Your task to perform on an android device: turn off location history Image 0: 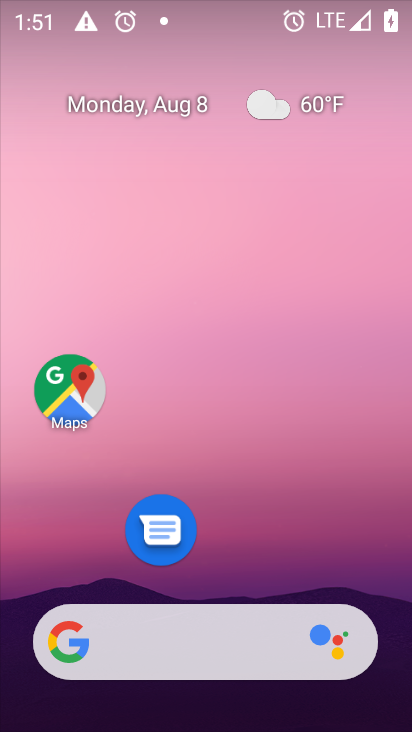
Step 0: drag from (236, 551) to (236, 85)
Your task to perform on an android device: turn off location history Image 1: 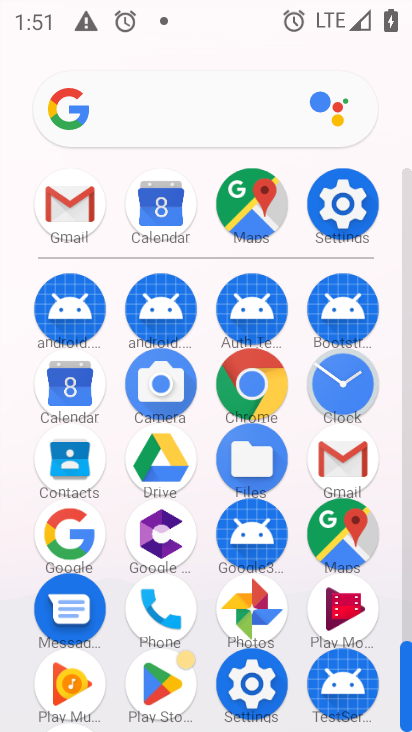
Step 1: click (343, 207)
Your task to perform on an android device: turn off location history Image 2: 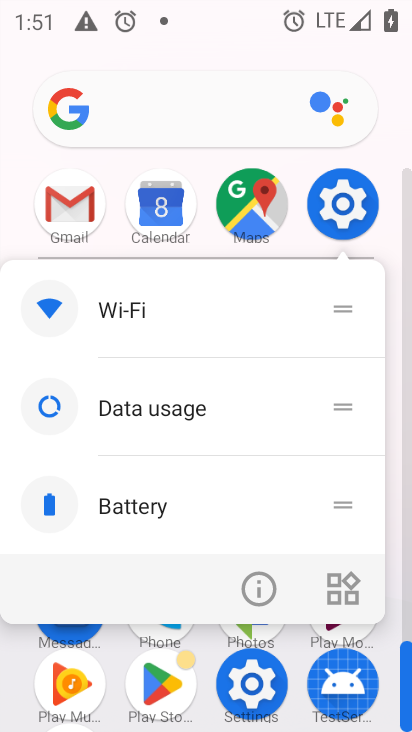
Step 2: click (342, 206)
Your task to perform on an android device: turn off location history Image 3: 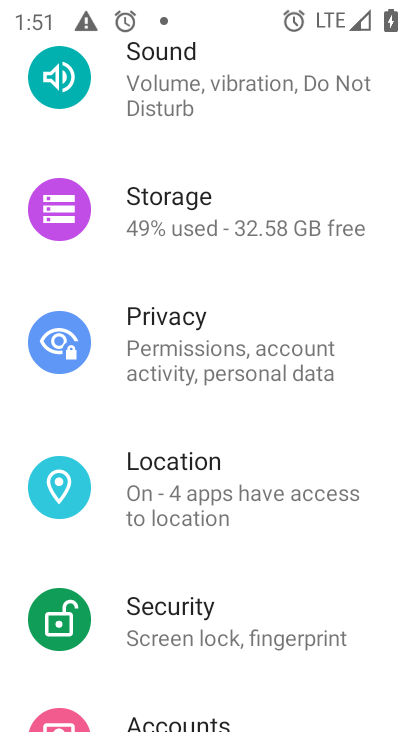
Step 3: click (194, 471)
Your task to perform on an android device: turn off location history Image 4: 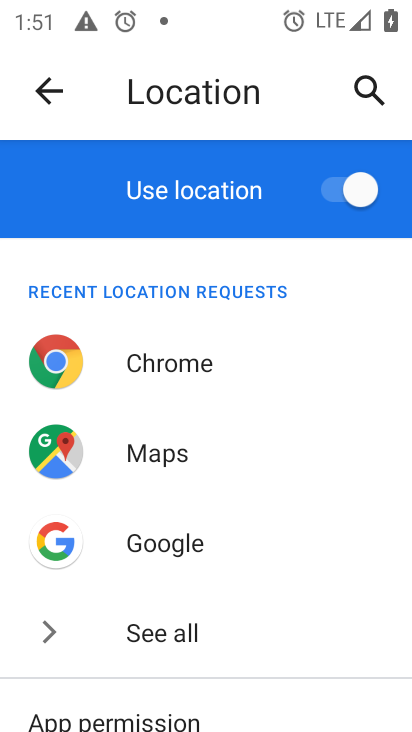
Step 4: drag from (164, 517) to (164, 359)
Your task to perform on an android device: turn off location history Image 5: 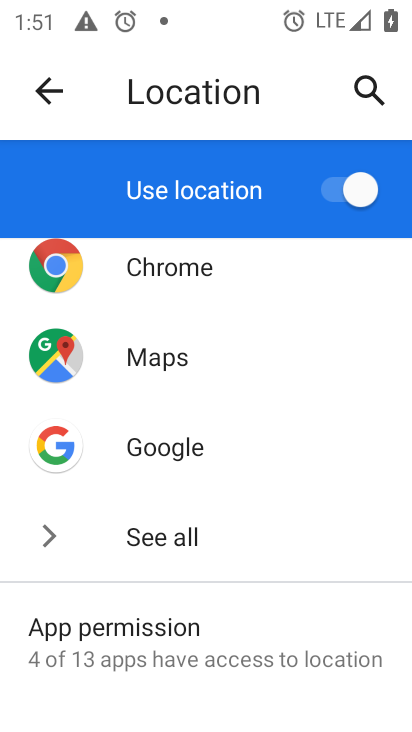
Step 5: drag from (253, 625) to (236, 327)
Your task to perform on an android device: turn off location history Image 6: 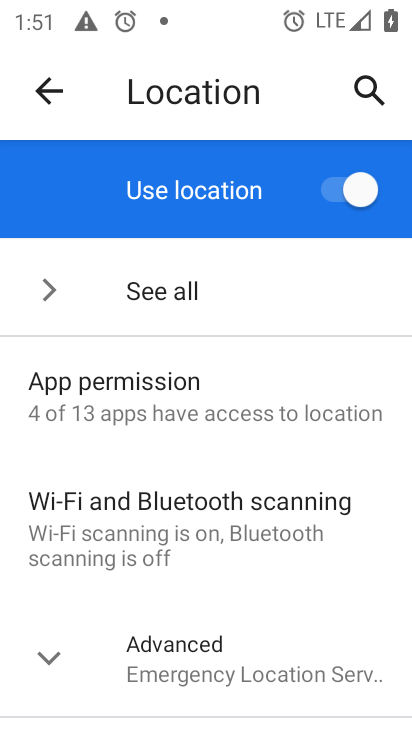
Step 6: click (228, 673)
Your task to perform on an android device: turn off location history Image 7: 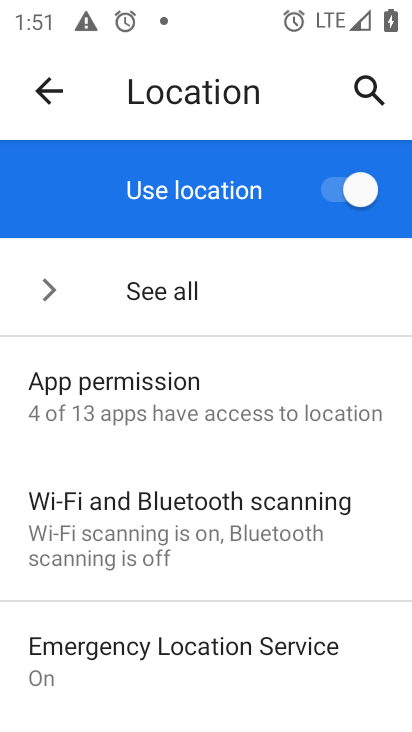
Step 7: drag from (222, 669) to (219, 400)
Your task to perform on an android device: turn off location history Image 8: 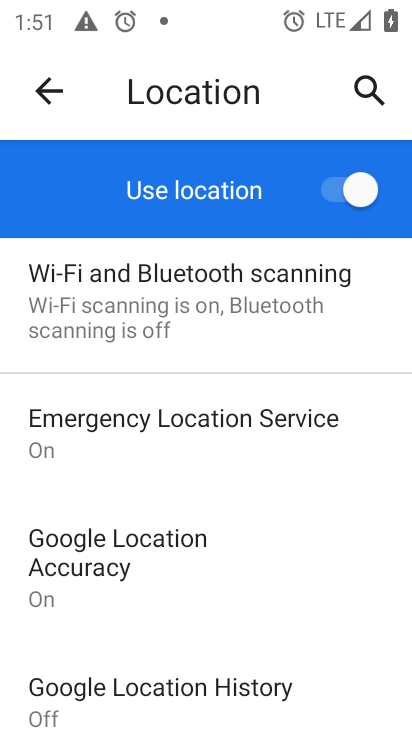
Step 8: click (207, 690)
Your task to perform on an android device: turn off location history Image 9: 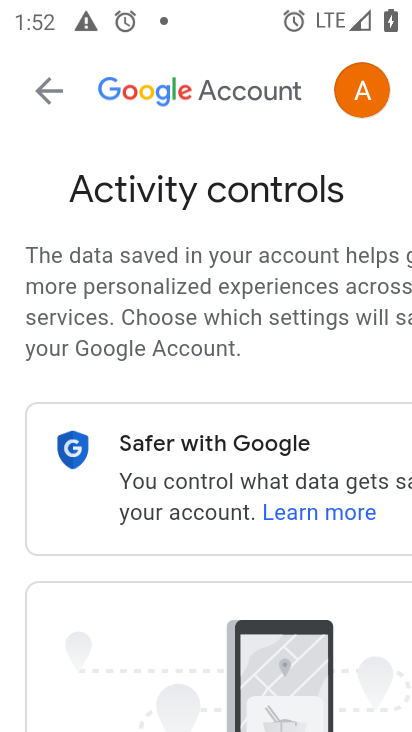
Step 9: task complete